Your task to perform on an android device: turn on location history Image 0: 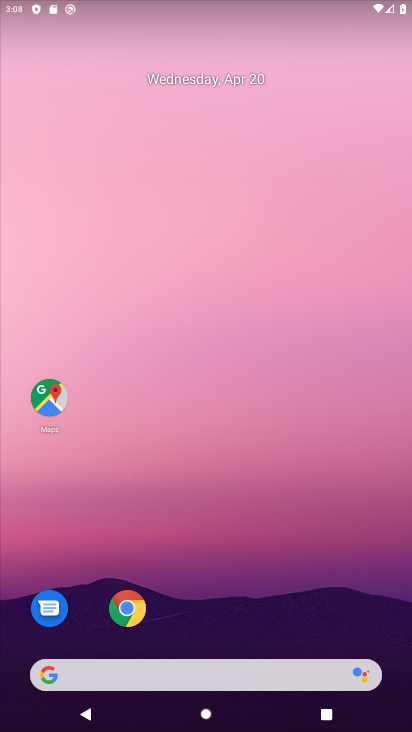
Step 0: drag from (223, 611) to (270, 307)
Your task to perform on an android device: turn on location history Image 1: 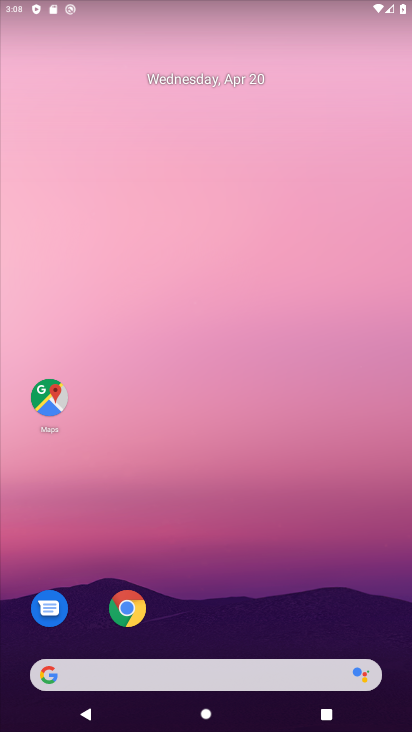
Step 1: drag from (221, 661) to (232, 303)
Your task to perform on an android device: turn on location history Image 2: 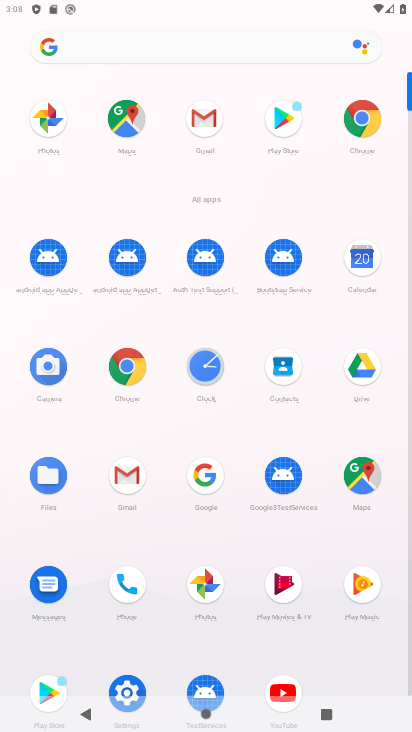
Step 2: click (125, 689)
Your task to perform on an android device: turn on location history Image 3: 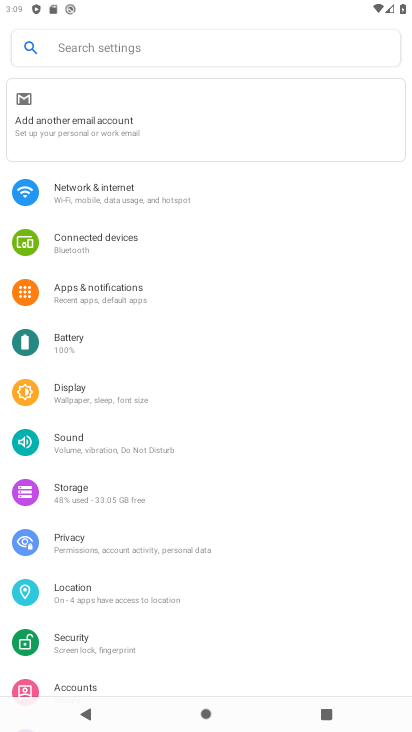
Step 3: click (101, 597)
Your task to perform on an android device: turn on location history Image 4: 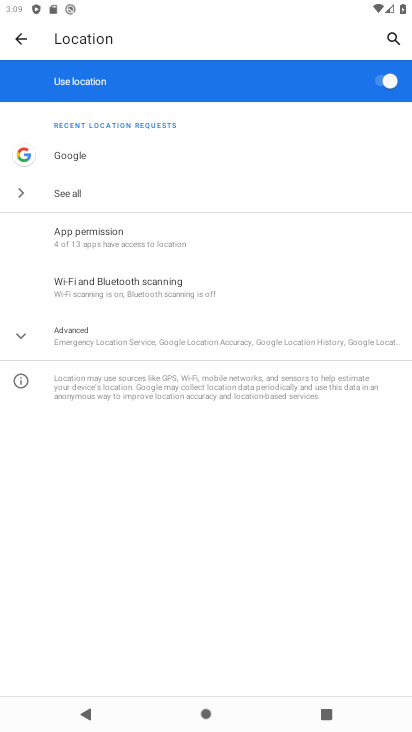
Step 4: click (94, 333)
Your task to perform on an android device: turn on location history Image 5: 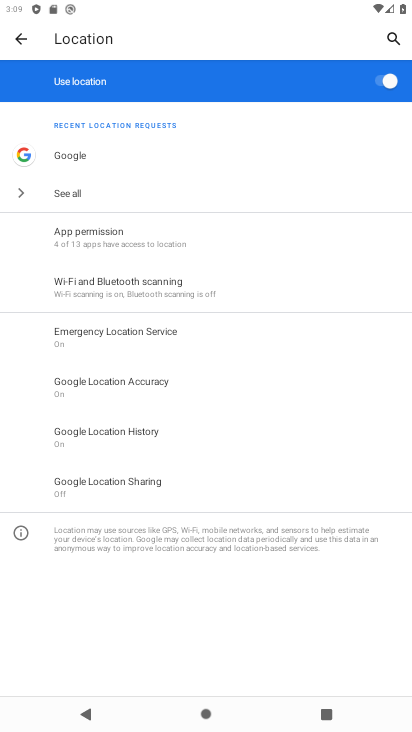
Step 5: click (101, 428)
Your task to perform on an android device: turn on location history Image 6: 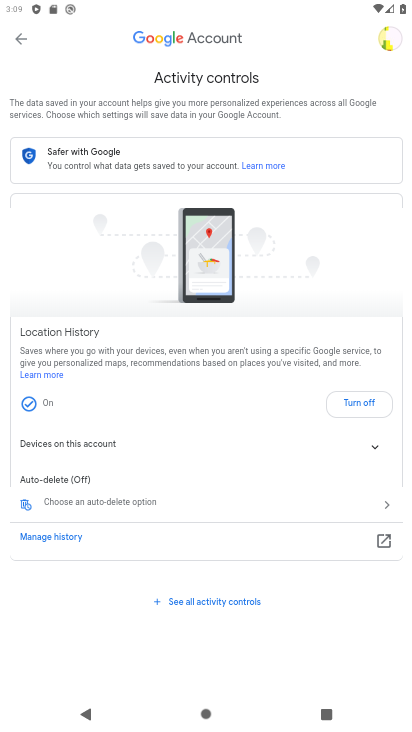
Step 6: task complete